Your task to perform on an android device: open app "Spotify: Music and Podcasts" Image 0: 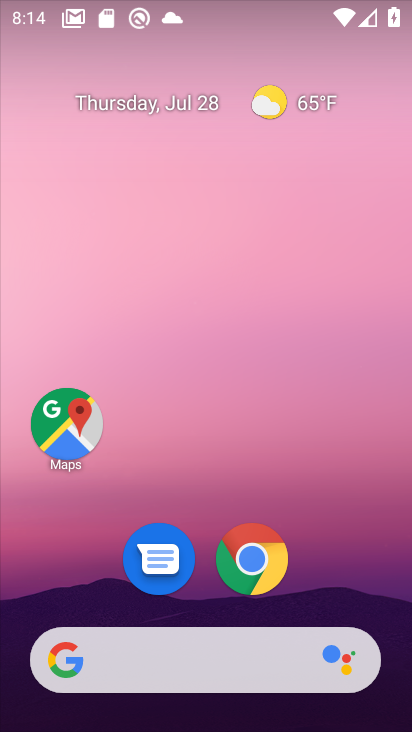
Step 0: drag from (216, 597) to (193, 71)
Your task to perform on an android device: open app "Spotify: Music and Podcasts" Image 1: 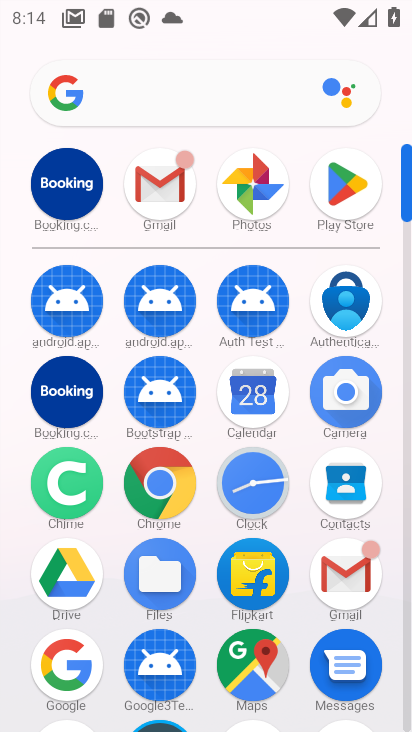
Step 1: click (364, 199)
Your task to perform on an android device: open app "Spotify: Music and Podcasts" Image 2: 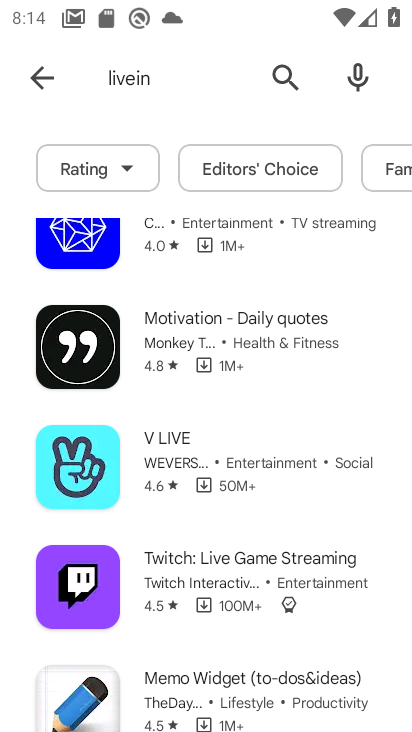
Step 2: click (148, 77)
Your task to perform on an android device: open app "Spotify: Music and Podcasts" Image 3: 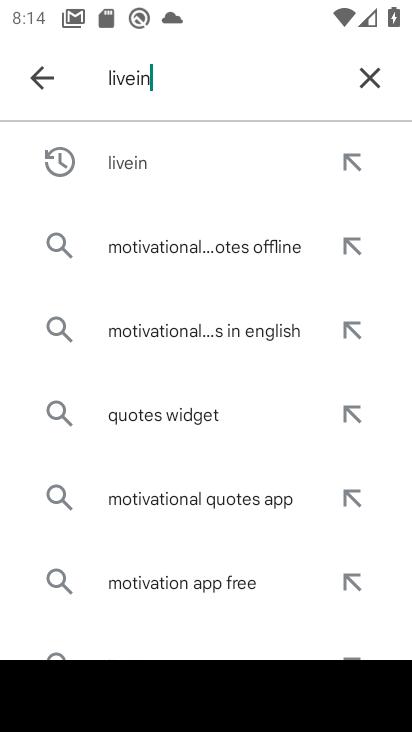
Step 3: click (375, 83)
Your task to perform on an android device: open app "Spotify: Music and Podcasts" Image 4: 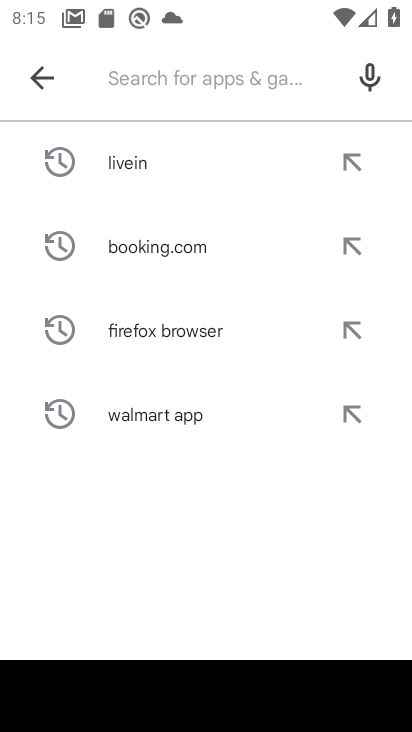
Step 4: type "Spotify"
Your task to perform on an android device: open app "Spotify: Music and Podcasts" Image 5: 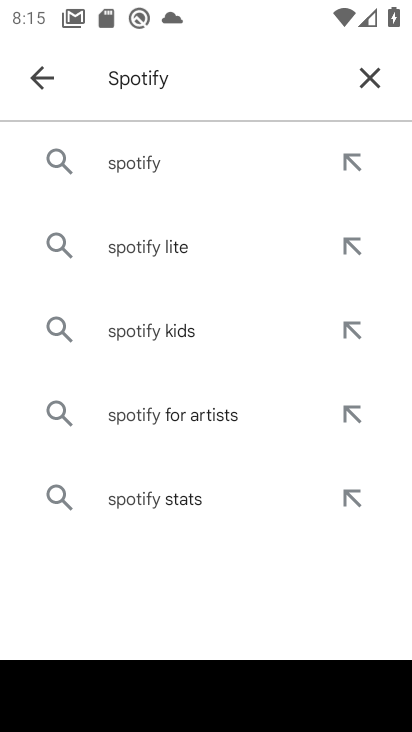
Step 5: click (154, 176)
Your task to perform on an android device: open app "Spotify: Music and Podcasts" Image 6: 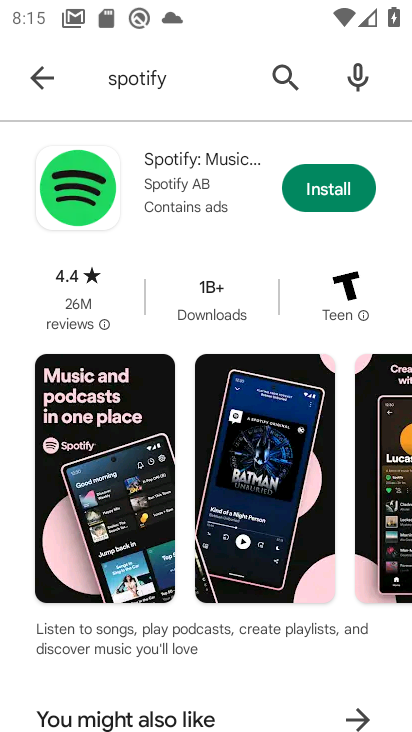
Step 6: task complete